Your task to perform on an android device: Go to Amazon Image 0: 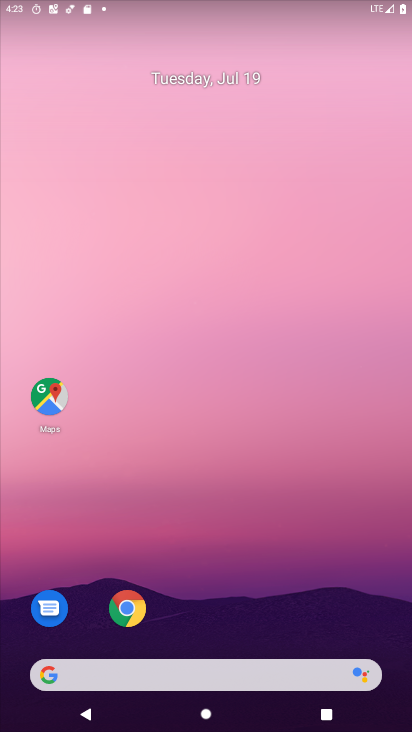
Step 0: click (127, 608)
Your task to perform on an android device: Go to Amazon Image 1: 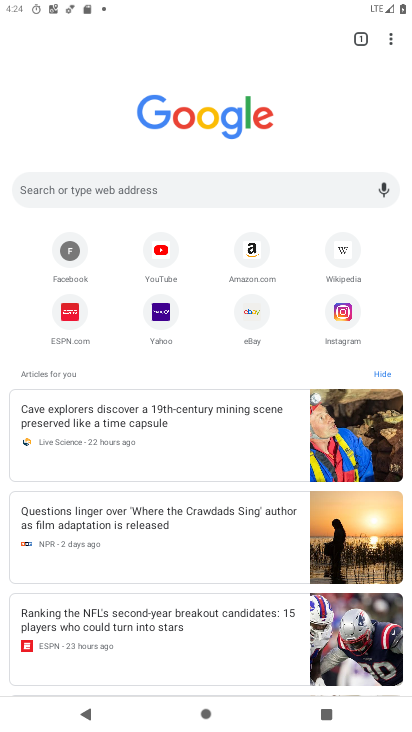
Step 1: click (250, 251)
Your task to perform on an android device: Go to Amazon Image 2: 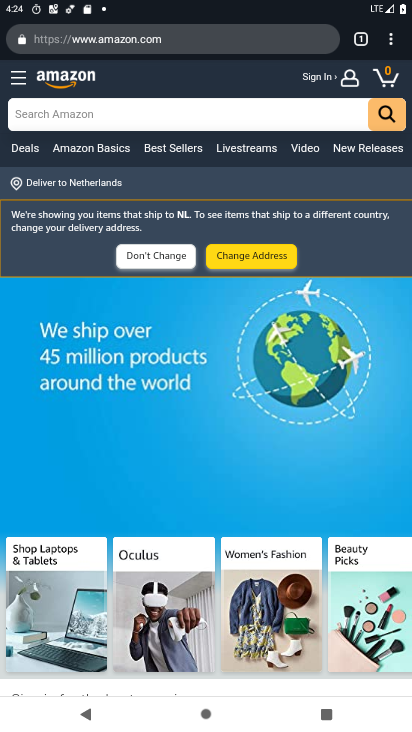
Step 2: task complete